Your task to perform on an android device: set an alarm Image 0: 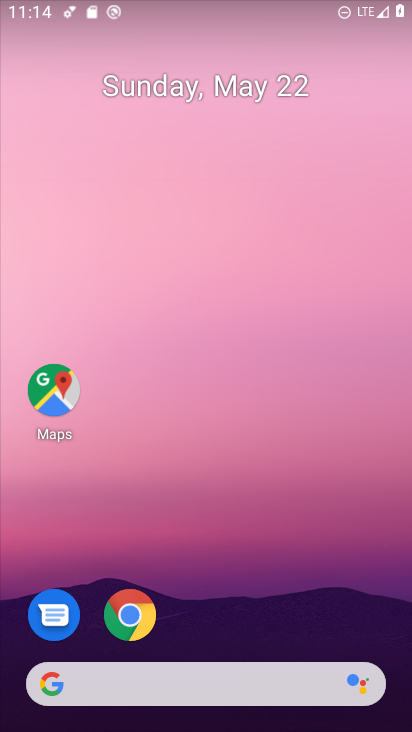
Step 0: drag from (170, 561) to (159, 77)
Your task to perform on an android device: set an alarm Image 1: 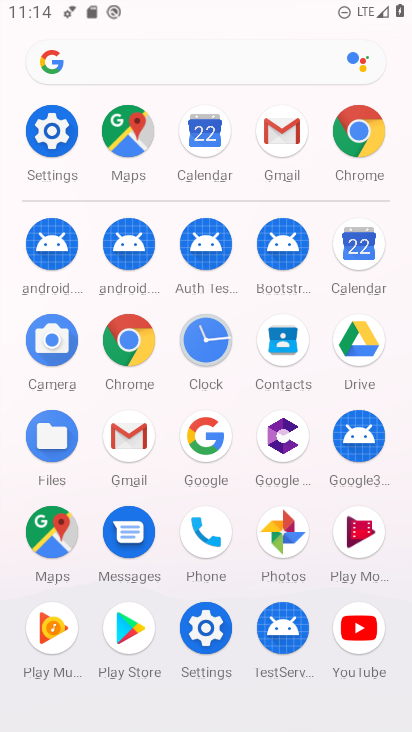
Step 1: click (206, 350)
Your task to perform on an android device: set an alarm Image 2: 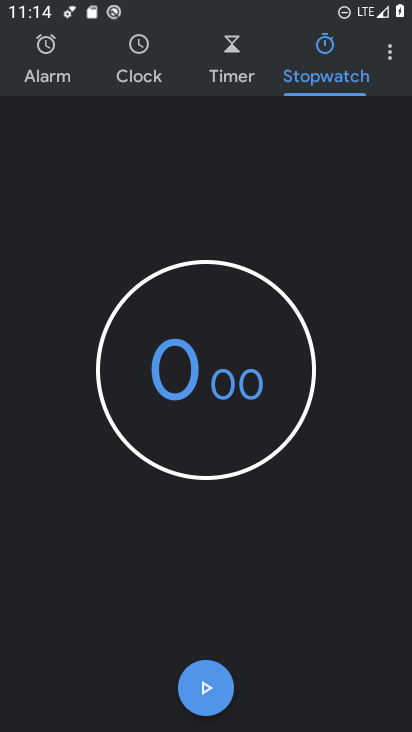
Step 2: click (54, 63)
Your task to perform on an android device: set an alarm Image 3: 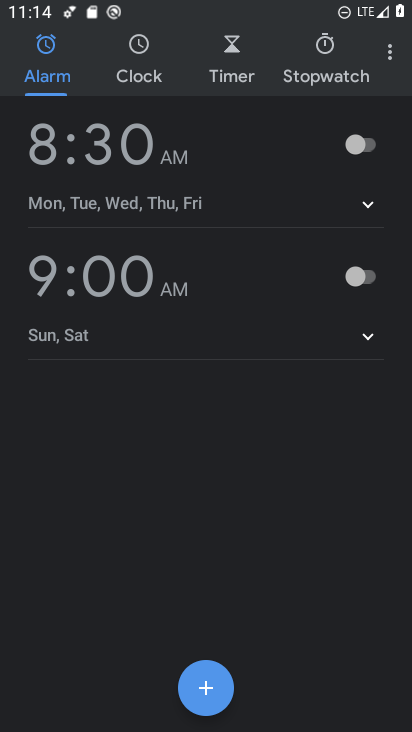
Step 3: click (204, 705)
Your task to perform on an android device: set an alarm Image 4: 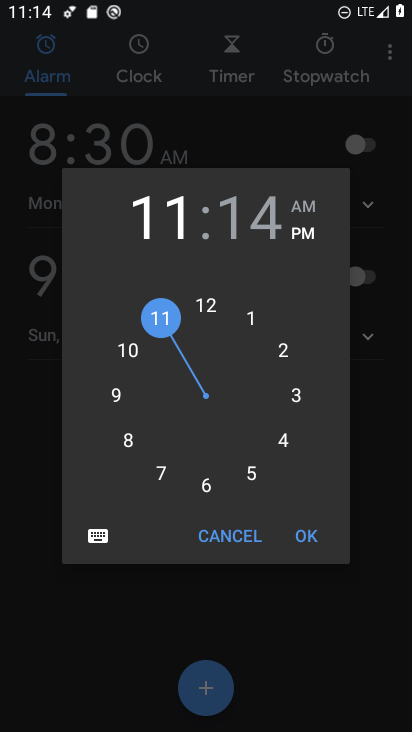
Step 4: click (318, 545)
Your task to perform on an android device: set an alarm Image 5: 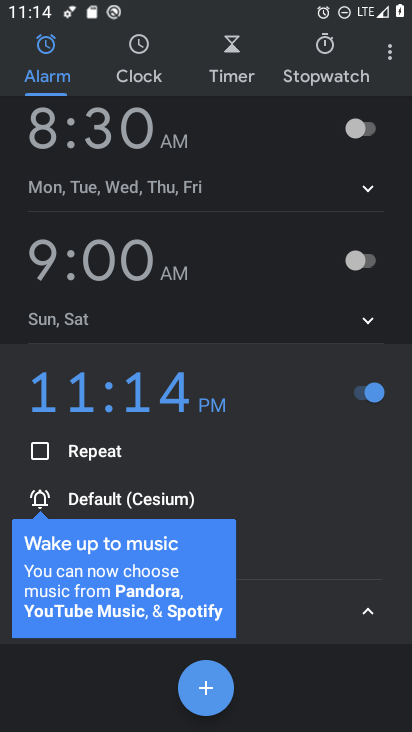
Step 5: task complete